Your task to perform on an android device: delete the emails in spam in the gmail app Image 0: 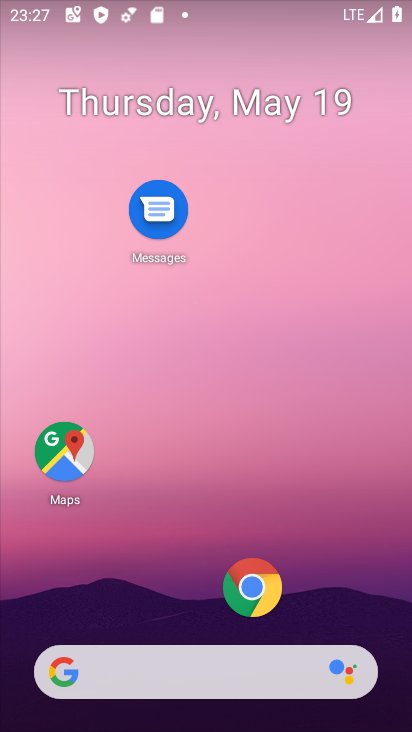
Step 0: drag from (115, 636) to (279, 10)
Your task to perform on an android device: delete the emails in spam in the gmail app Image 1: 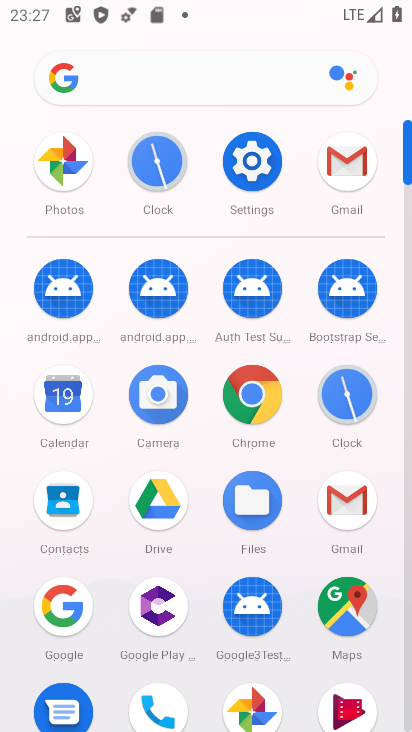
Step 1: click (336, 168)
Your task to perform on an android device: delete the emails in spam in the gmail app Image 2: 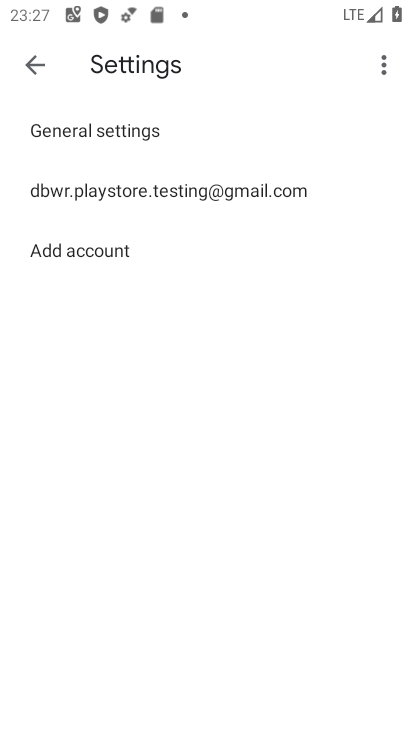
Step 2: click (41, 78)
Your task to perform on an android device: delete the emails in spam in the gmail app Image 3: 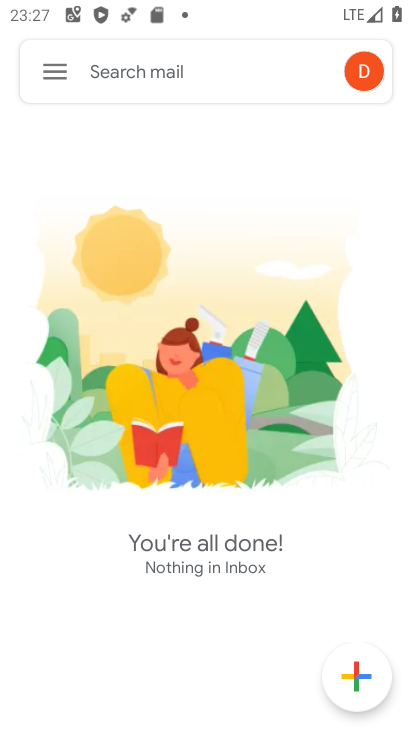
Step 3: click (48, 73)
Your task to perform on an android device: delete the emails in spam in the gmail app Image 4: 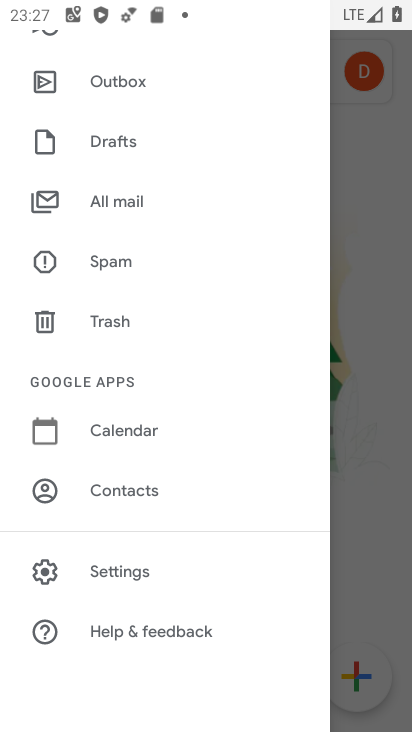
Step 4: click (133, 268)
Your task to perform on an android device: delete the emails in spam in the gmail app Image 5: 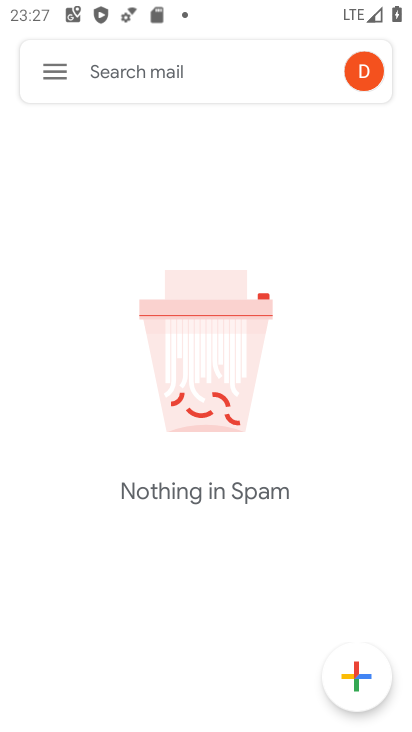
Step 5: task complete